Your task to perform on an android device: Open settings on Google Maps Image 0: 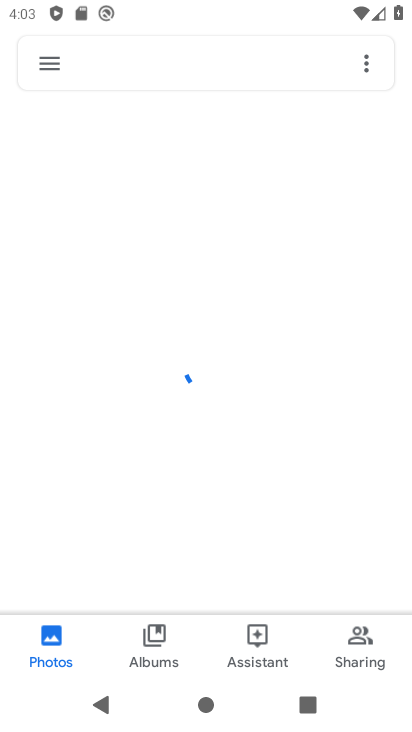
Step 0: press home button
Your task to perform on an android device: Open settings on Google Maps Image 1: 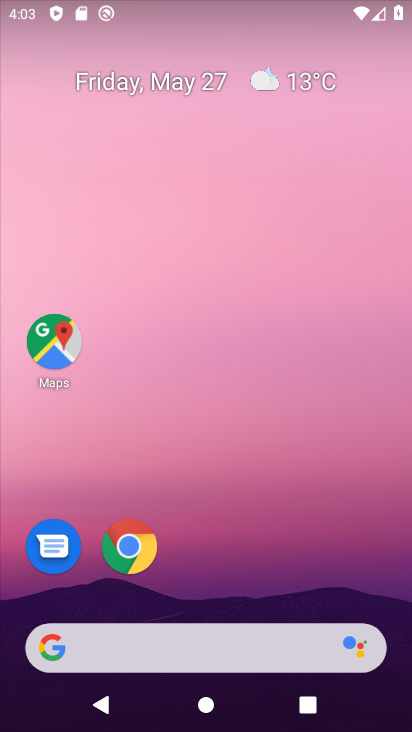
Step 1: drag from (234, 267) to (257, 127)
Your task to perform on an android device: Open settings on Google Maps Image 2: 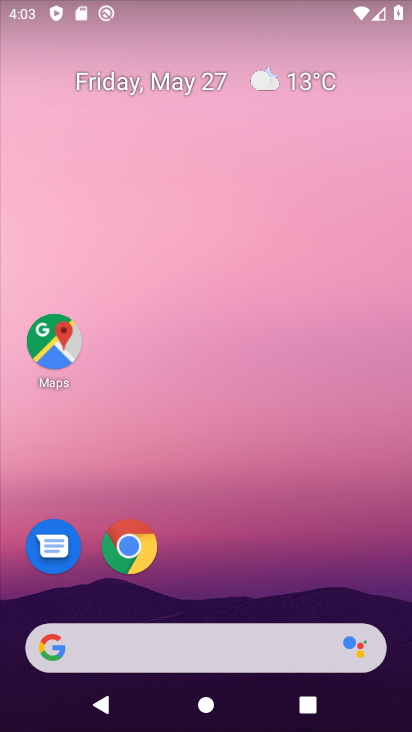
Step 2: click (73, 349)
Your task to perform on an android device: Open settings on Google Maps Image 3: 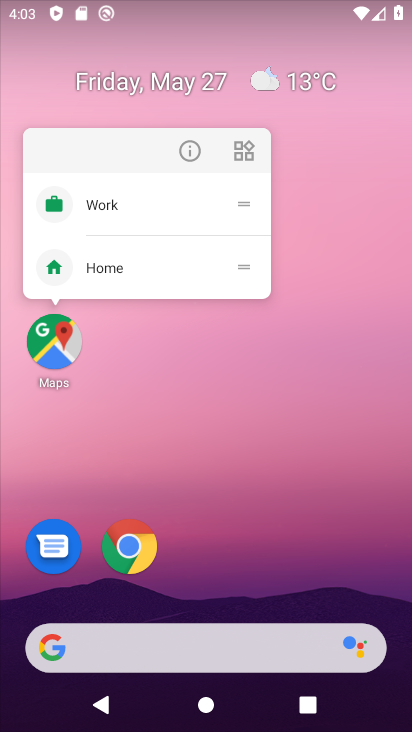
Step 3: click (73, 349)
Your task to perform on an android device: Open settings on Google Maps Image 4: 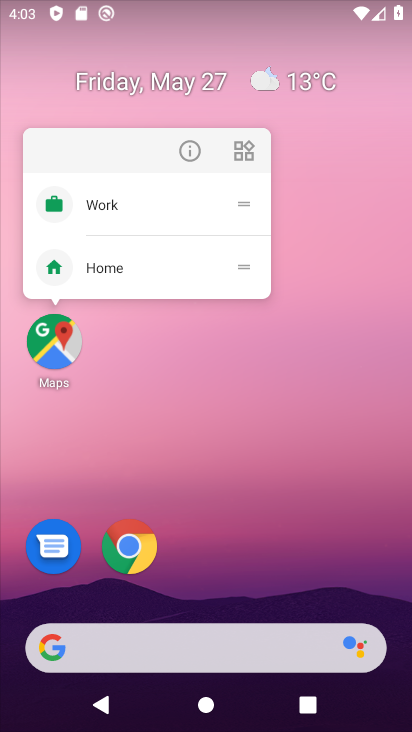
Step 4: click (68, 348)
Your task to perform on an android device: Open settings on Google Maps Image 5: 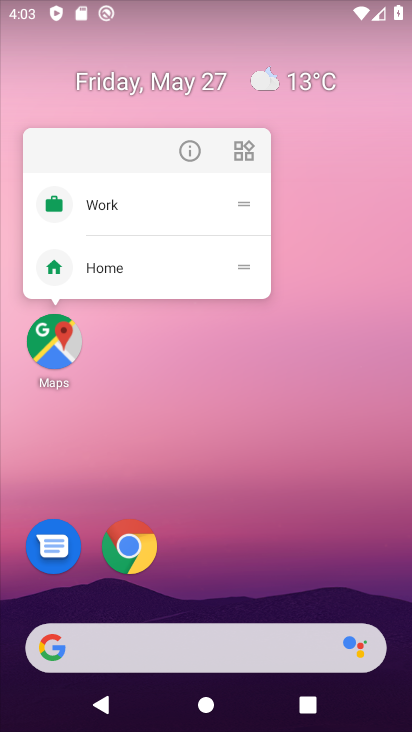
Step 5: click (51, 348)
Your task to perform on an android device: Open settings on Google Maps Image 6: 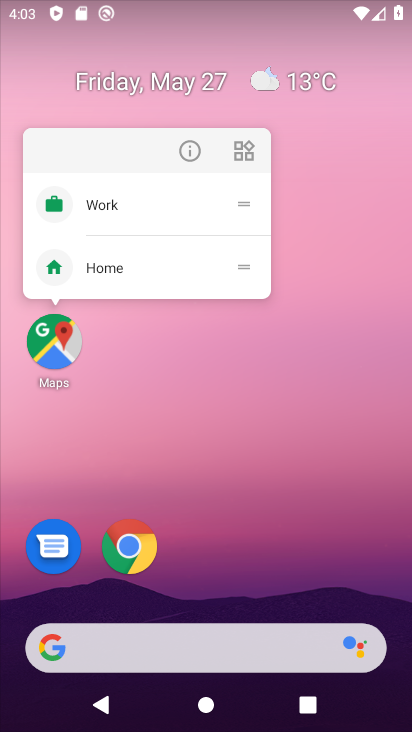
Step 6: click (51, 348)
Your task to perform on an android device: Open settings on Google Maps Image 7: 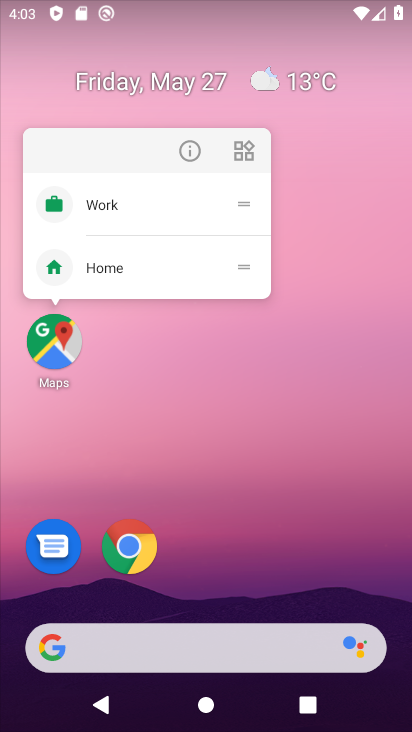
Step 7: click (51, 348)
Your task to perform on an android device: Open settings on Google Maps Image 8: 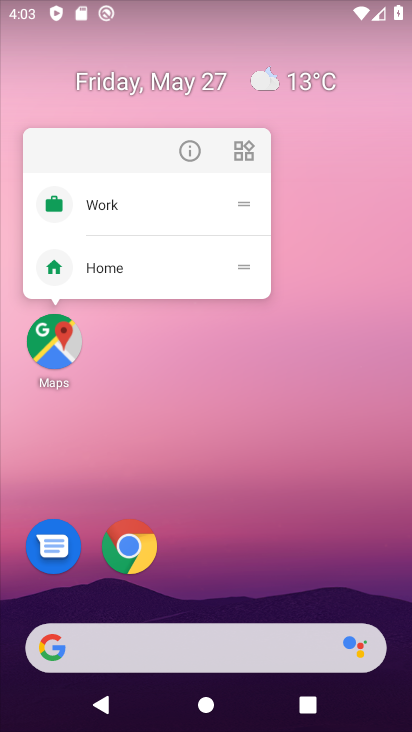
Step 8: click (41, 344)
Your task to perform on an android device: Open settings on Google Maps Image 9: 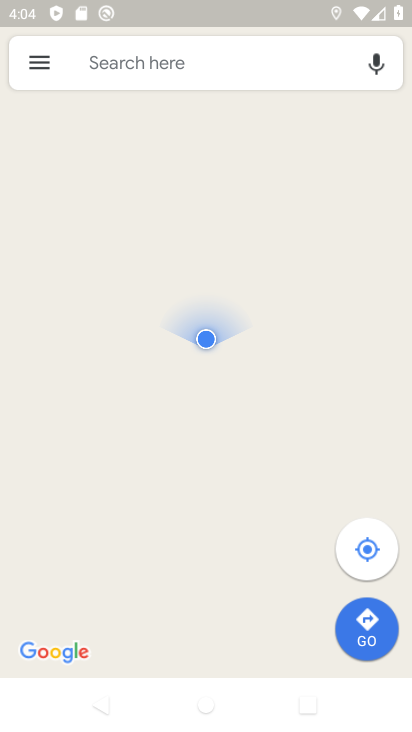
Step 9: click (54, 65)
Your task to perform on an android device: Open settings on Google Maps Image 10: 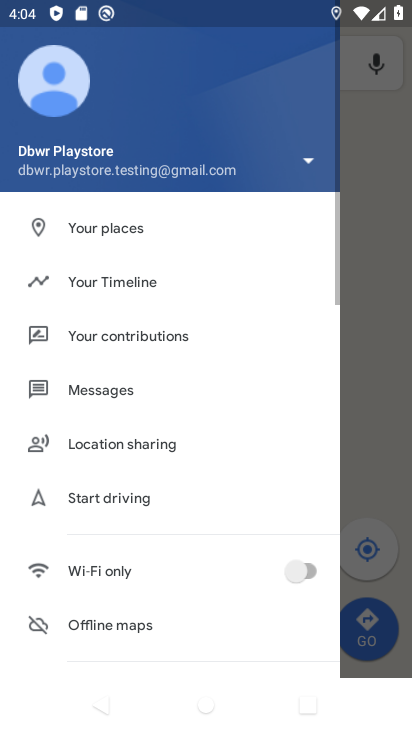
Step 10: drag from (152, 387) to (197, 159)
Your task to perform on an android device: Open settings on Google Maps Image 11: 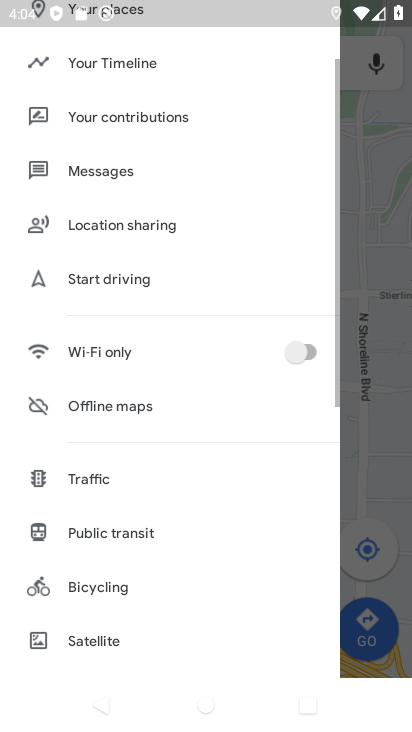
Step 11: drag from (138, 627) to (229, 246)
Your task to perform on an android device: Open settings on Google Maps Image 12: 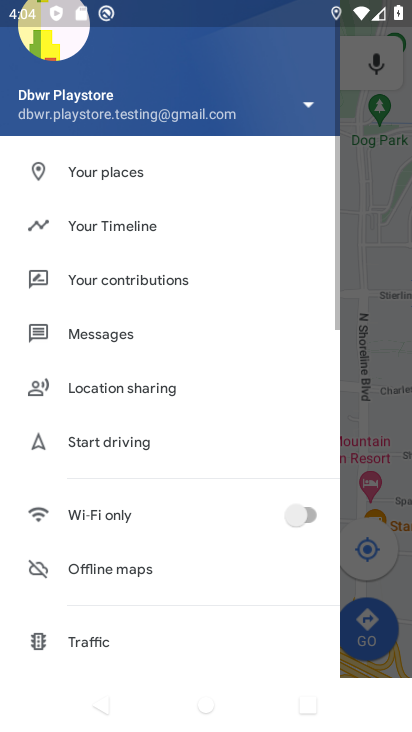
Step 12: drag from (163, 675) to (262, 171)
Your task to perform on an android device: Open settings on Google Maps Image 13: 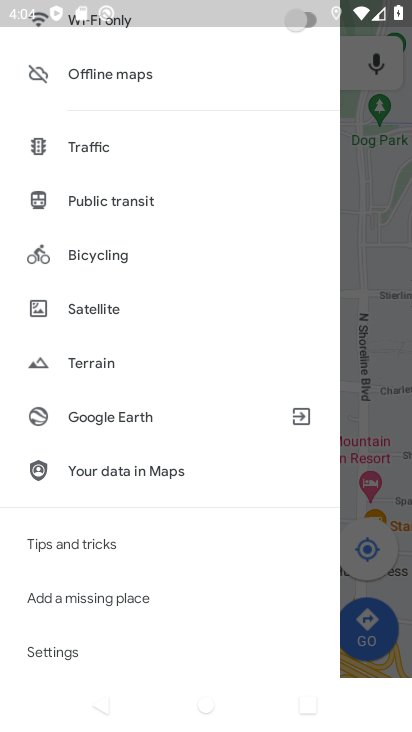
Step 13: drag from (125, 619) to (198, 316)
Your task to perform on an android device: Open settings on Google Maps Image 14: 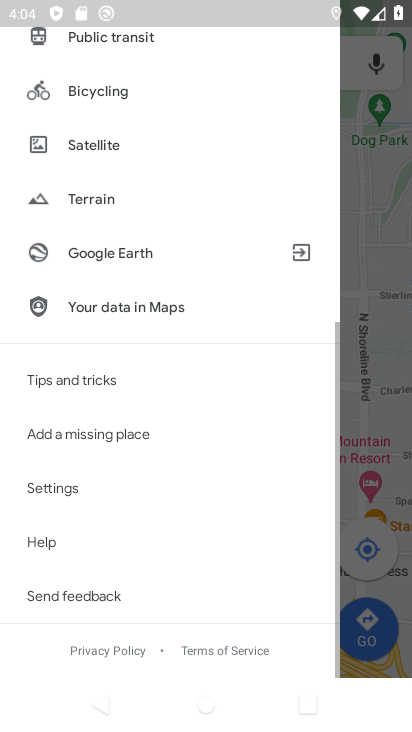
Step 14: click (100, 501)
Your task to perform on an android device: Open settings on Google Maps Image 15: 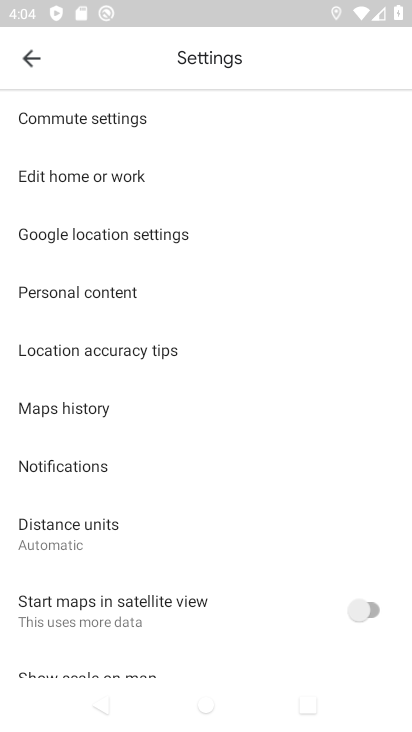
Step 15: task complete